Your task to perform on an android device: set the stopwatch Image 0: 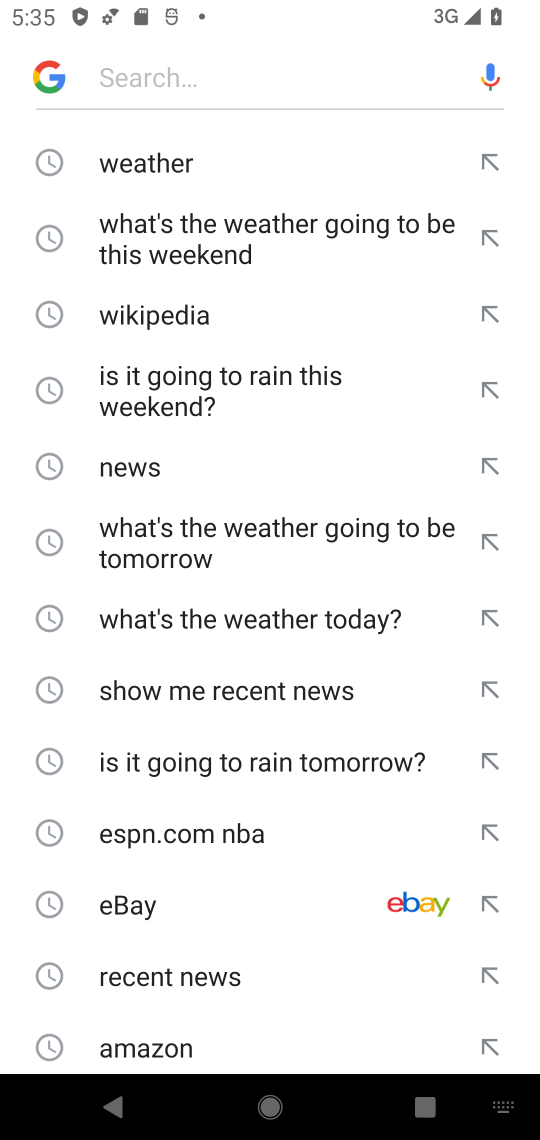
Step 0: press home button
Your task to perform on an android device: set the stopwatch Image 1: 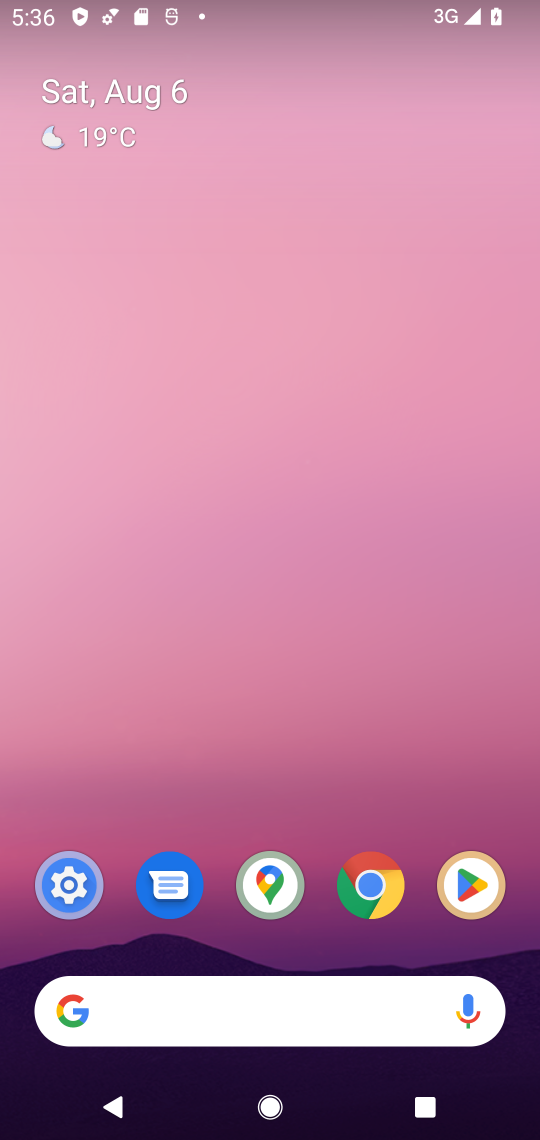
Step 1: drag from (423, 937) to (401, 55)
Your task to perform on an android device: set the stopwatch Image 2: 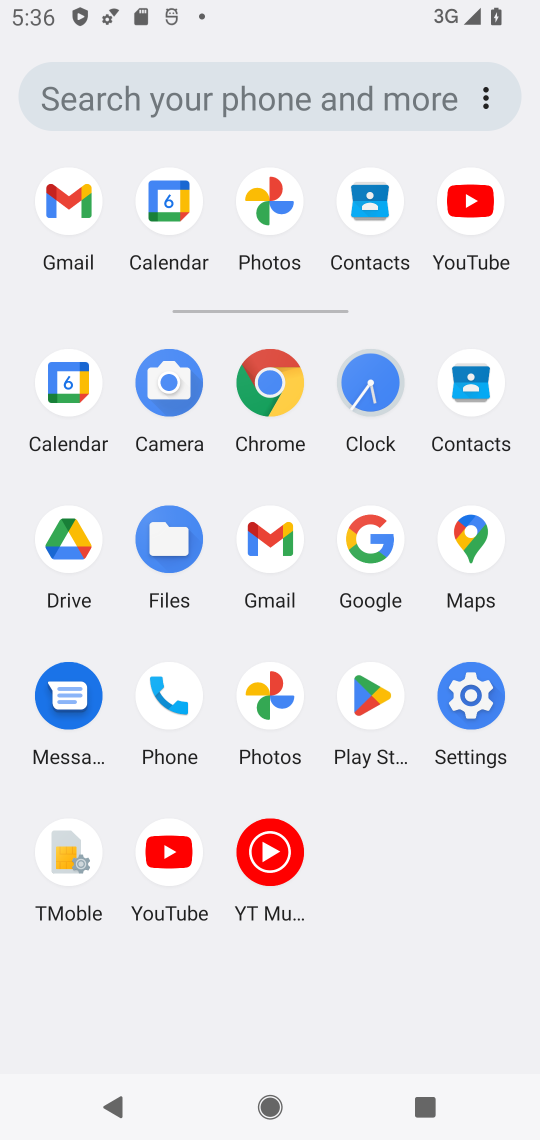
Step 2: click (371, 410)
Your task to perform on an android device: set the stopwatch Image 3: 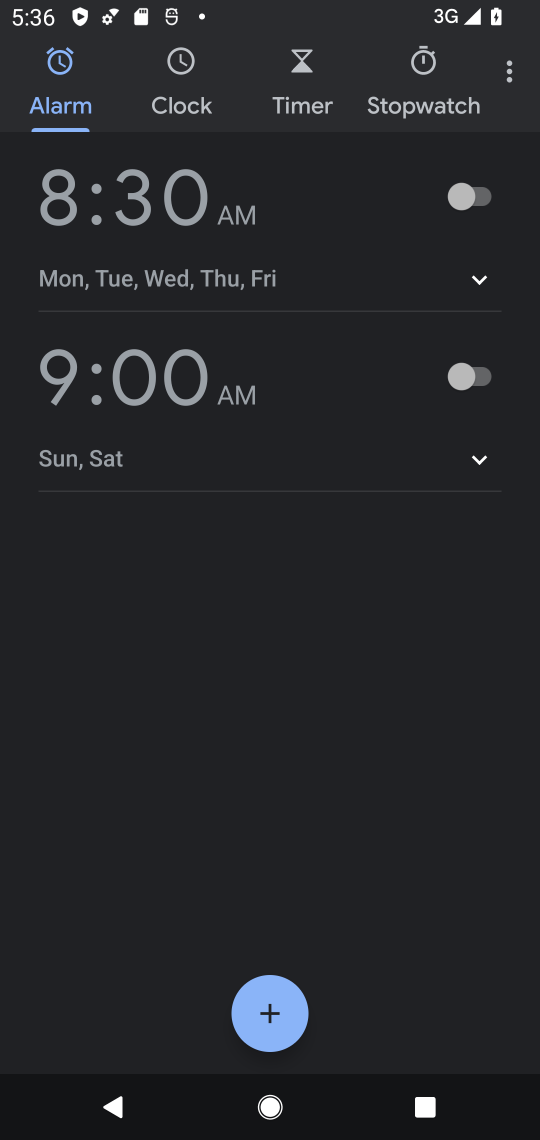
Step 3: click (416, 67)
Your task to perform on an android device: set the stopwatch Image 4: 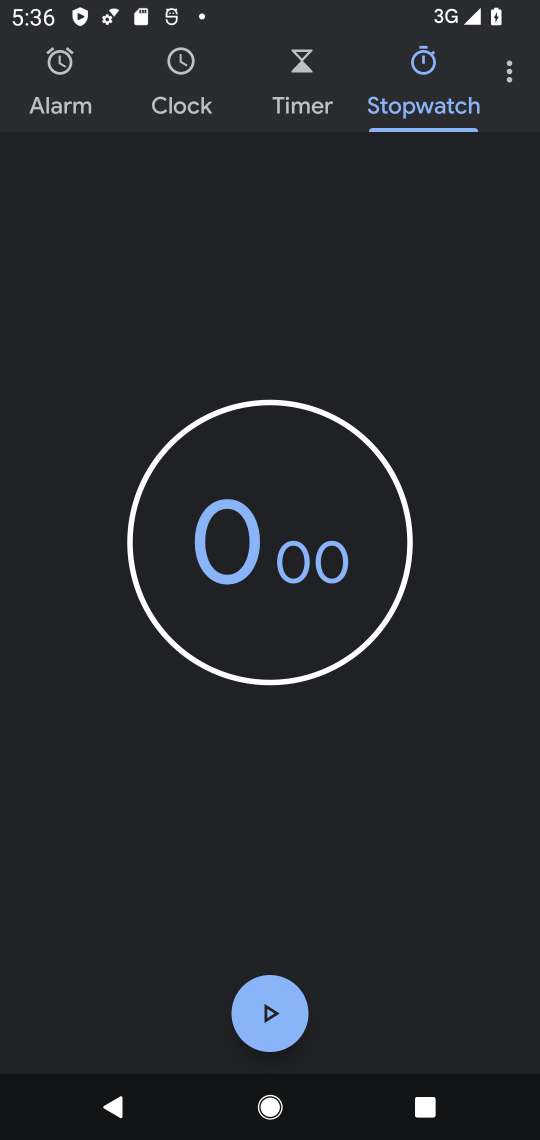
Step 4: click (259, 1007)
Your task to perform on an android device: set the stopwatch Image 5: 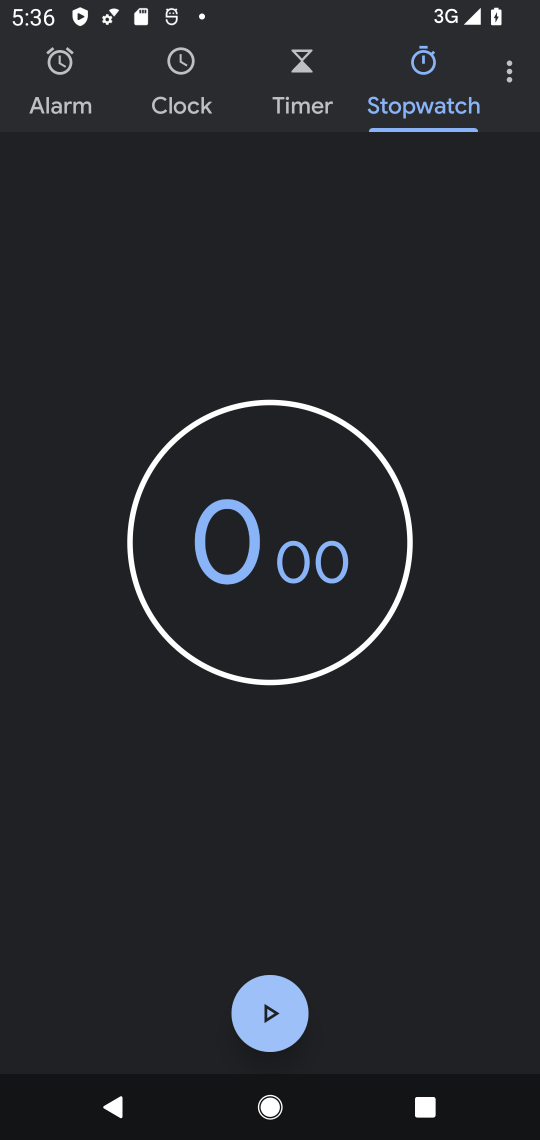
Step 5: click (259, 1007)
Your task to perform on an android device: set the stopwatch Image 6: 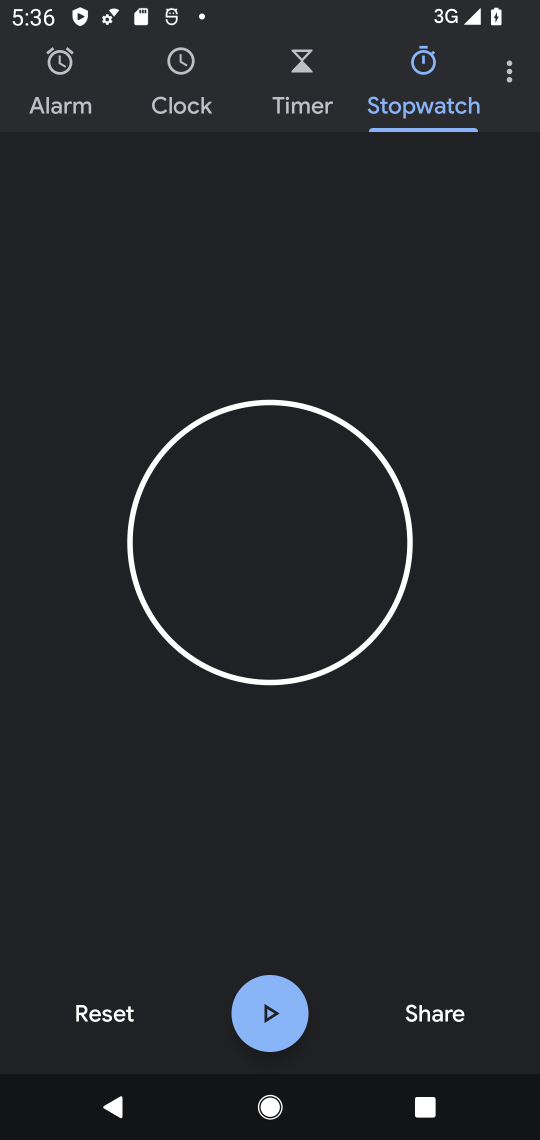
Step 6: task complete